Your task to perform on an android device: Open Google Maps Image 0: 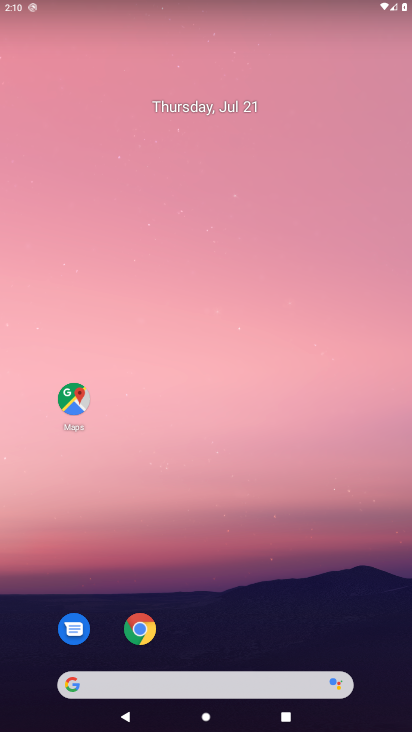
Step 0: click (78, 401)
Your task to perform on an android device: Open Google Maps Image 1: 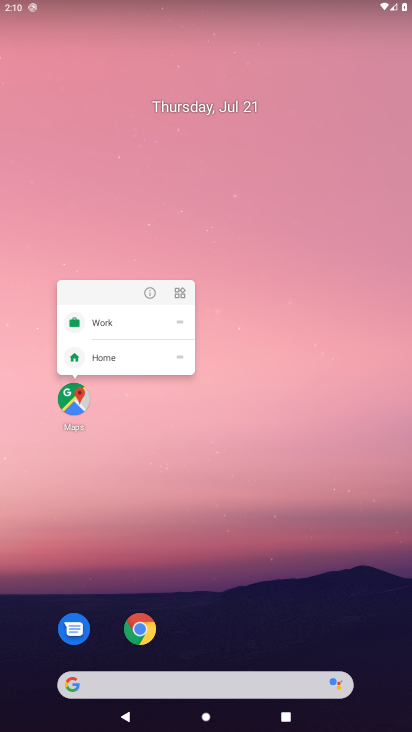
Step 1: click (62, 391)
Your task to perform on an android device: Open Google Maps Image 2: 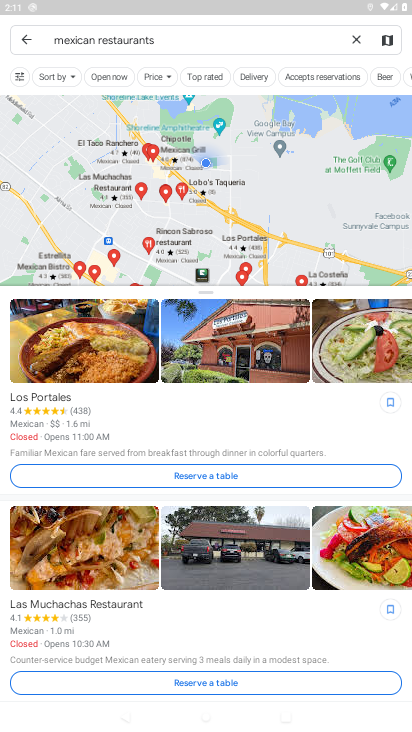
Step 2: click (28, 45)
Your task to perform on an android device: Open Google Maps Image 3: 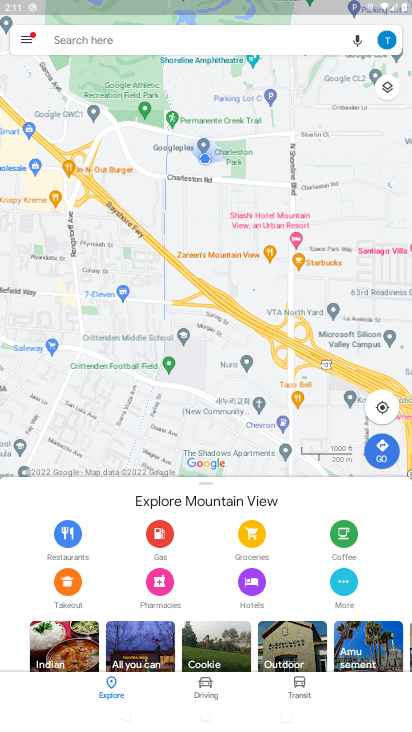
Step 3: task complete